Your task to perform on an android device: turn off translation in the chrome app Image 0: 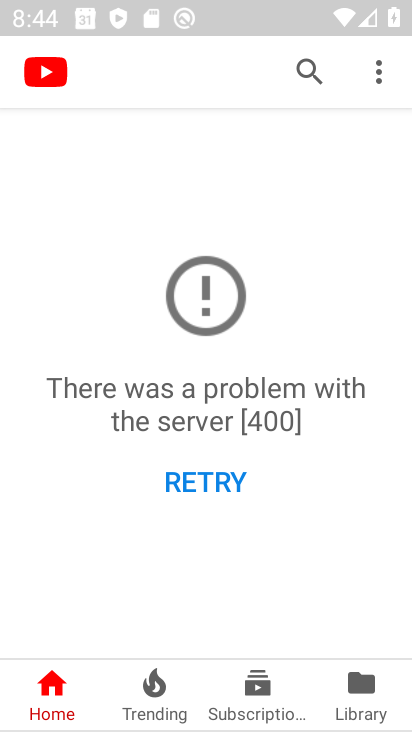
Step 0: press back button
Your task to perform on an android device: turn off translation in the chrome app Image 1: 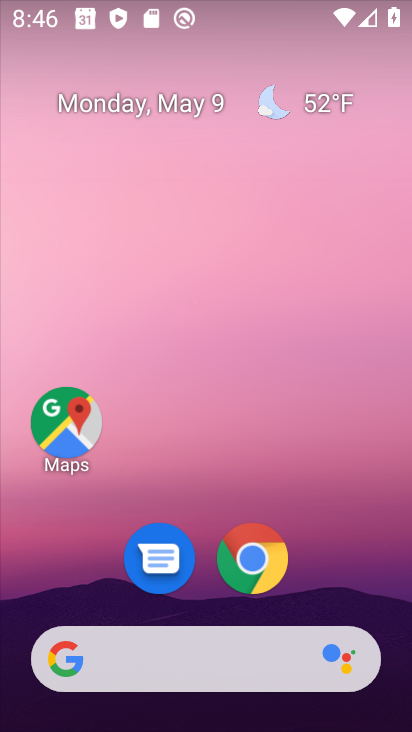
Step 1: click (253, 564)
Your task to perform on an android device: turn off translation in the chrome app Image 2: 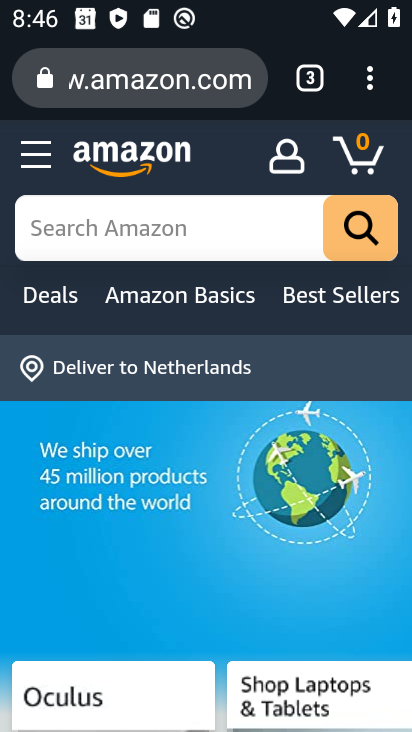
Step 2: click (371, 72)
Your task to perform on an android device: turn off translation in the chrome app Image 3: 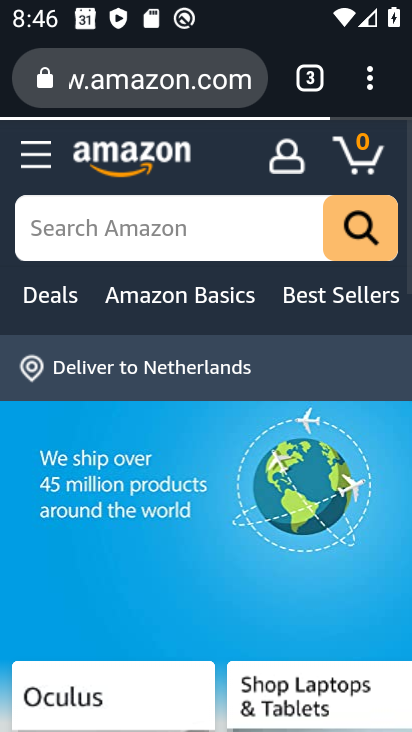
Step 3: drag from (374, 82) to (149, 598)
Your task to perform on an android device: turn off translation in the chrome app Image 4: 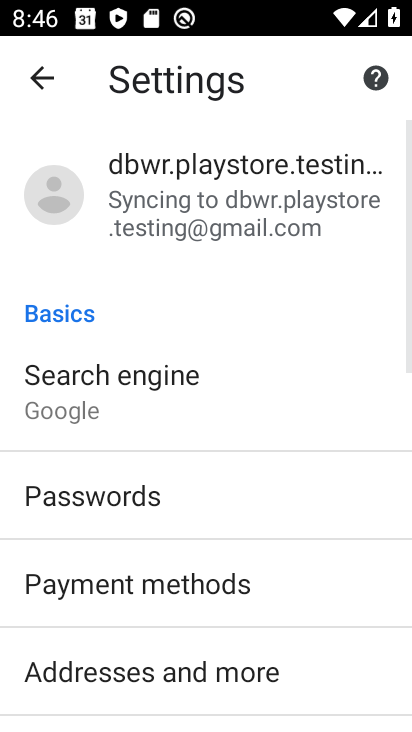
Step 4: drag from (152, 663) to (253, 93)
Your task to perform on an android device: turn off translation in the chrome app Image 5: 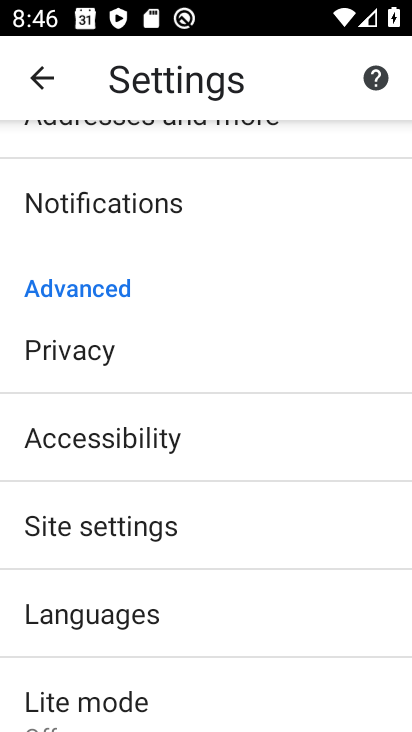
Step 5: click (161, 622)
Your task to perform on an android device: turn off translation in the chrome app Image 6: 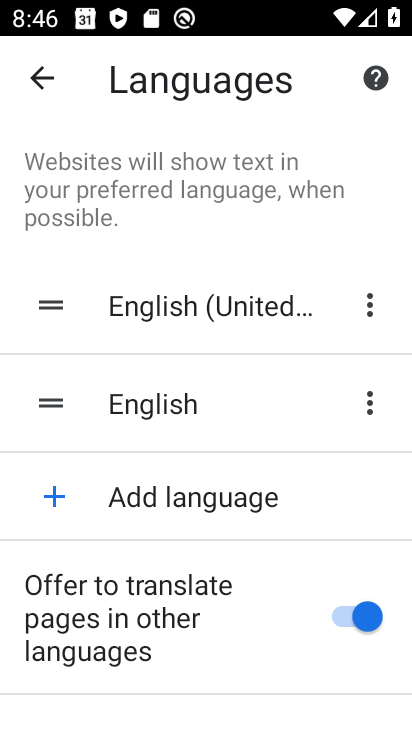
Step 6: drag from (188, 678) to (265, 301)
Your task to perform on an android device: turn off translation in the chrome app Image 7: 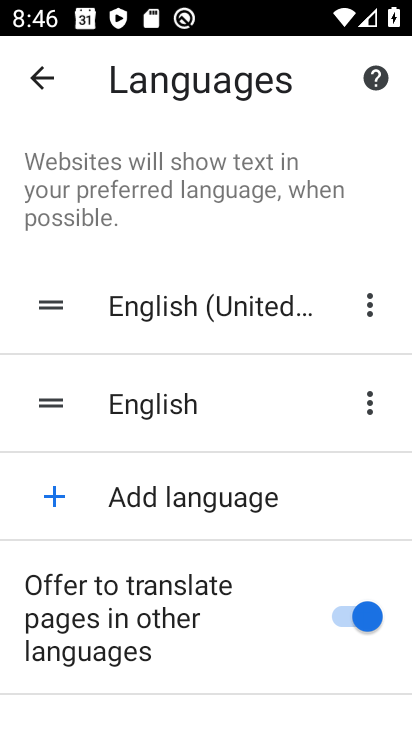
Step 7: click (355, 616)
Your task to perform on an android device: turn off translation in the chrome app Image 8: 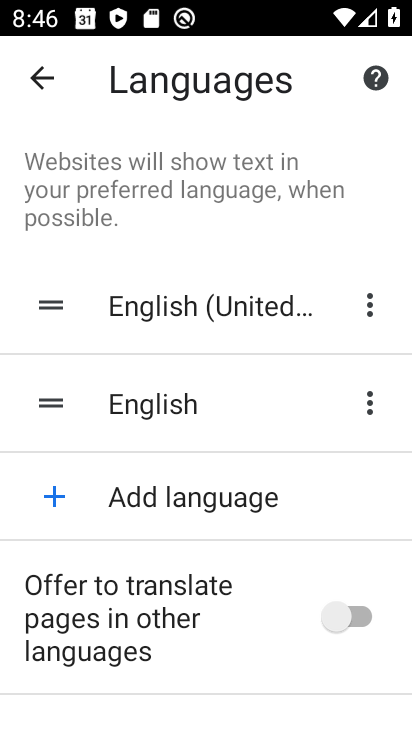
Step 8: task complete